Your task to perform on an android device: Open Maps and search for coffee Image 0: 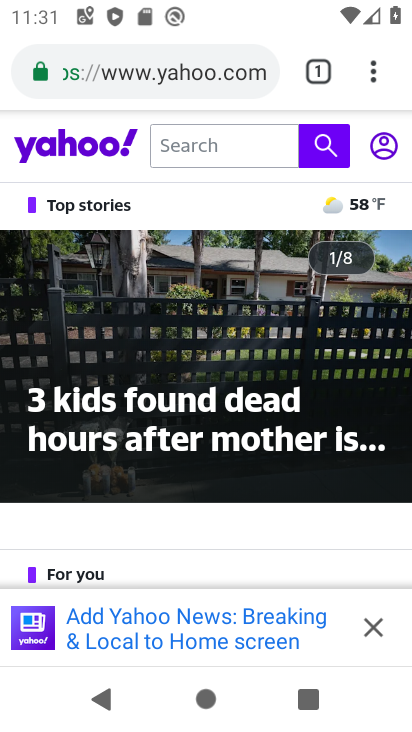
Step 0: press home button
Your task to perform on an android device: Open Maps and search for coffee Image 1: 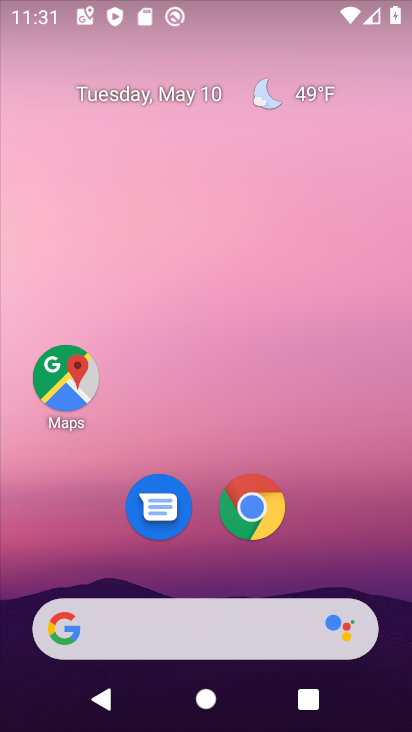
Step 1: drag from (214, 566) to (175, 51)
Your task to perform on an android device: Open Maps and search for coffee Image 2: 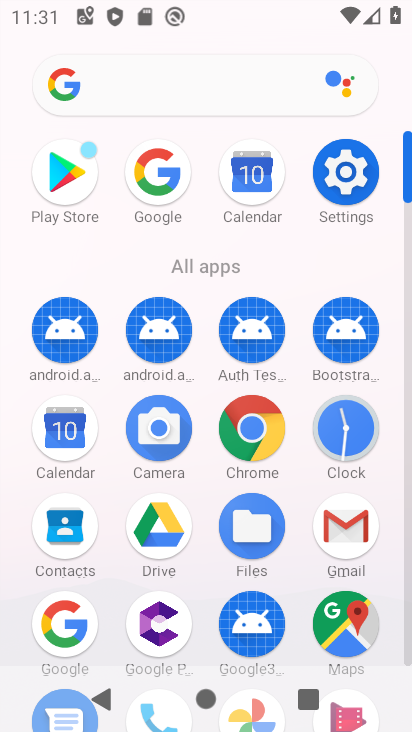
Step 2: click (352, 628)
Your task to perform on an android device: Open Maps and search for coffee Image 3: 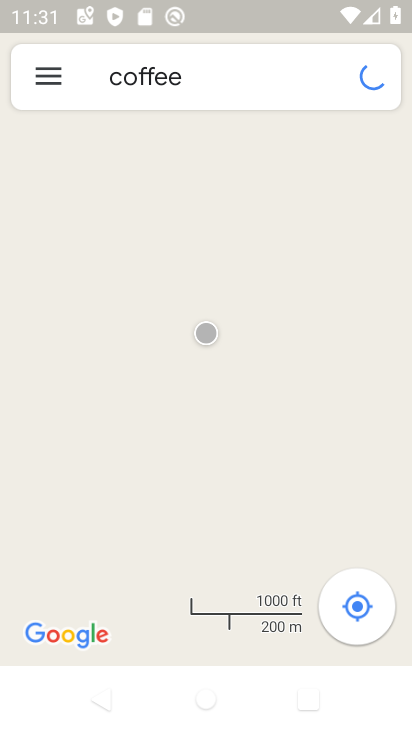
Step 3: click (238, 71)
Your task to perform on an android device: Open Maps and search for coffee Image 4: 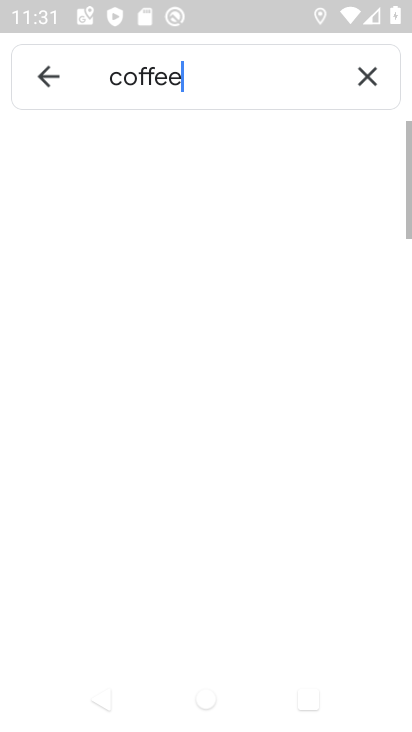
Step 4: click (375, 72)
Your task to perform on an android device: Open Maps and search for coffee Image 5: 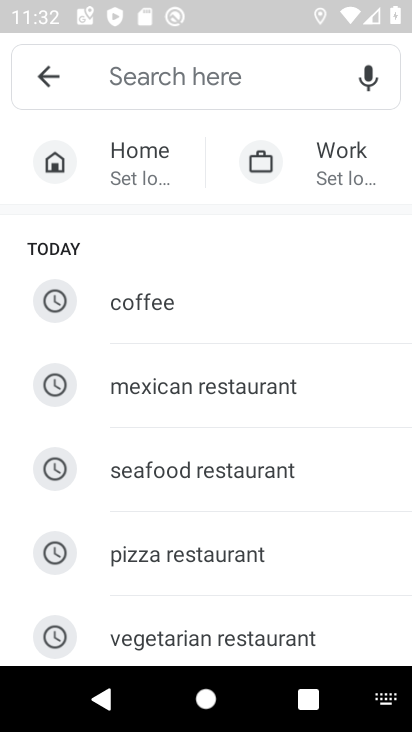
Step 5: click (153, 311)
Your task to perform on an android device: Open Maps and search for coffee Image 6: 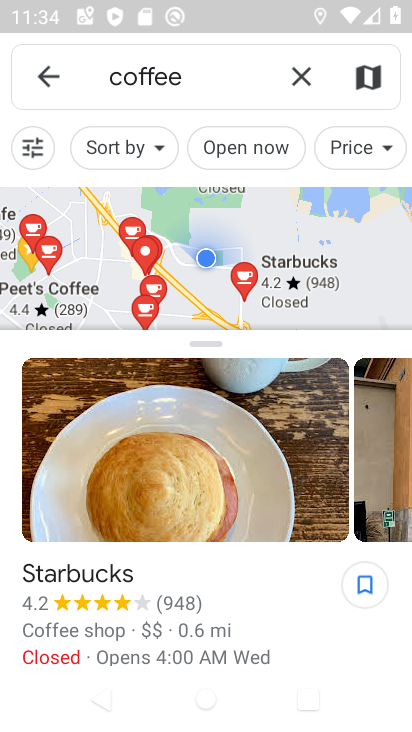
Step 6: task complete